Your task to perform on an android device: Go to battery settings Image 0: 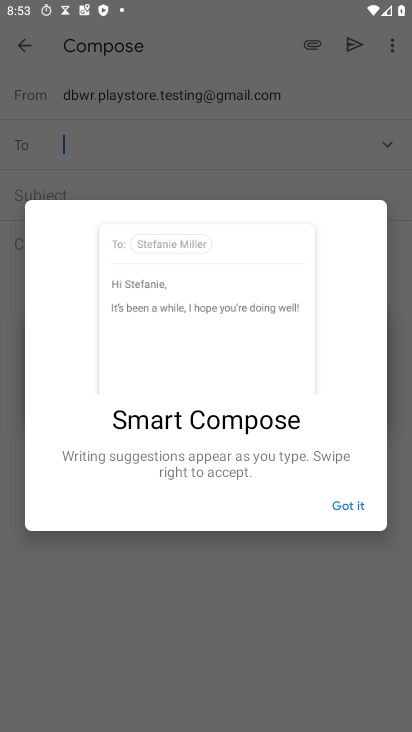
Step 0: press home button
Your task to perform on an android device: Go to battery settings Image 1: 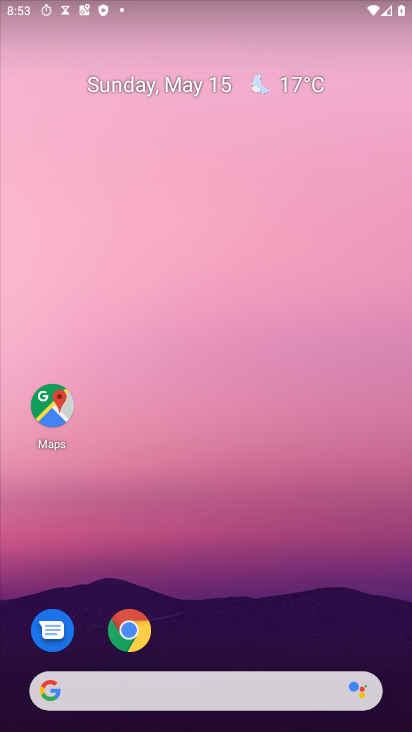
Step 1: drag from (307, 541) to (289, 3)
Your task to perform on an android device: Go to battery settings Image 2: 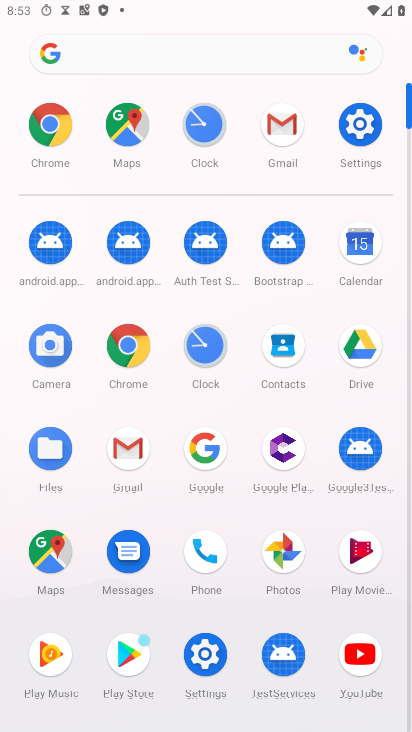
Step 2: click (362, 130)
Your task to perform on an android device: Go to battery settings Image 3: 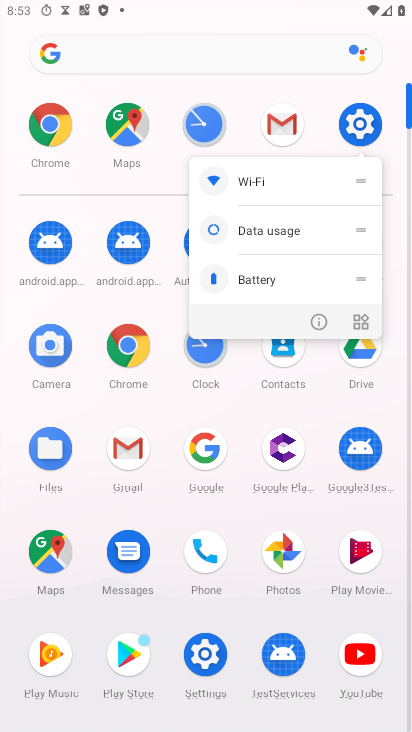
Step 3: click (362, 129)
Your task to perform on an android device: Go to battery settings Image 4: 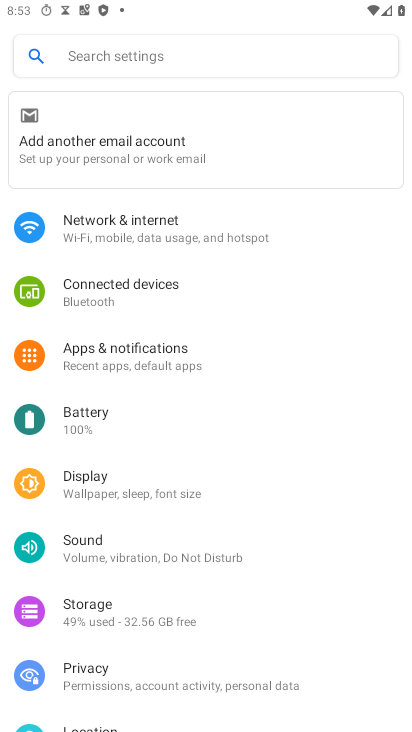
Step 4: click (77, 400)
Your task to perform on an android device: Go to battery settings Image 5: 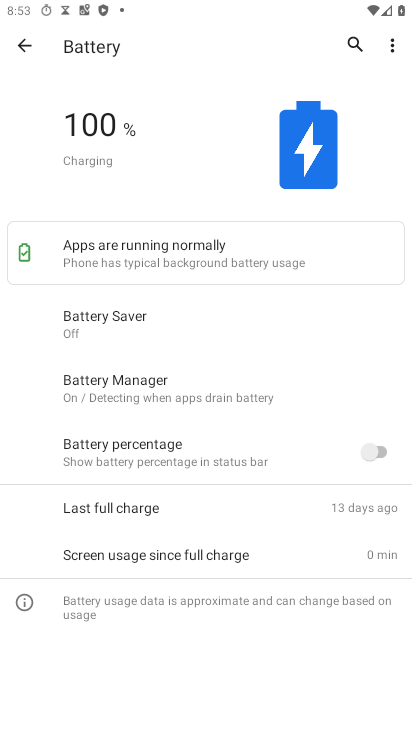
Step 5: task complete